Your task to perform on an android device: turn off wifi Image 0: 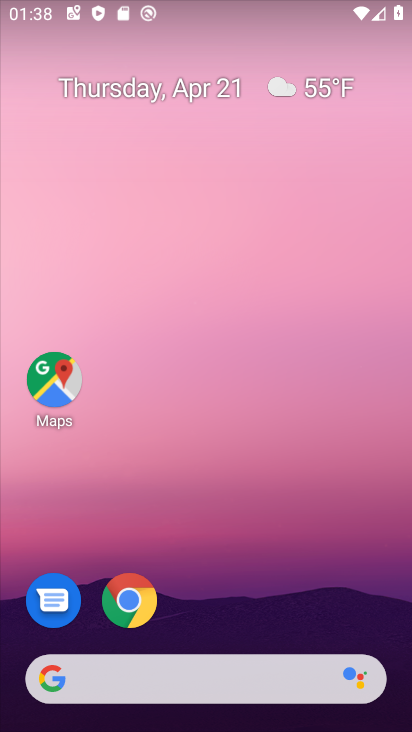
Step 0: drag from (300, 595) to (289, 150)
Your task to perform on an android device: turn off wifi Image 1: 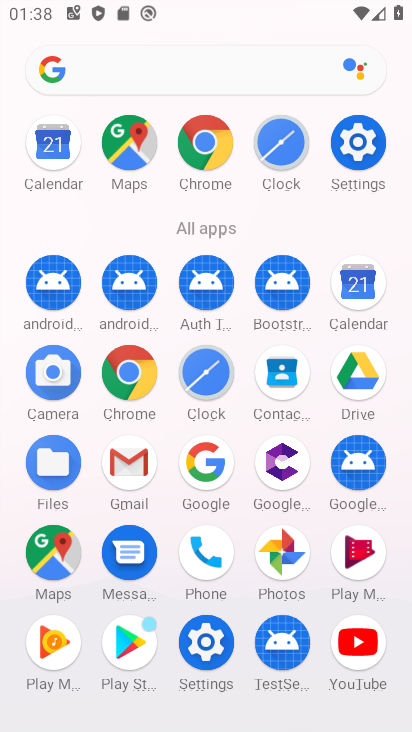
Step 1: click (364, 147)
Your task to perform on an android device: turn off wifi Image 2: 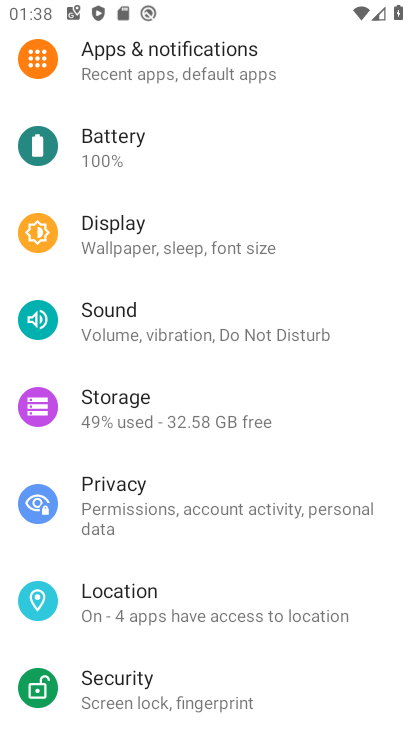
Step 2: drag from (313, 217) to (304, 528)
Your task to perform on an android device: turn off wifi Image 3: 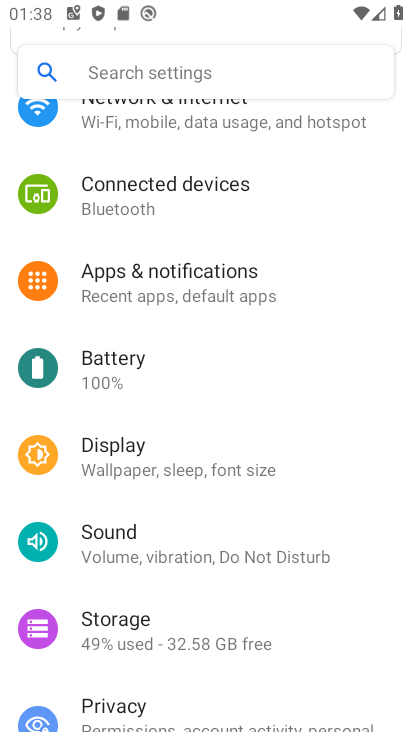
Step 3: click (213, 130)
Your task to perform on an android device: turn off wifi Image 4: 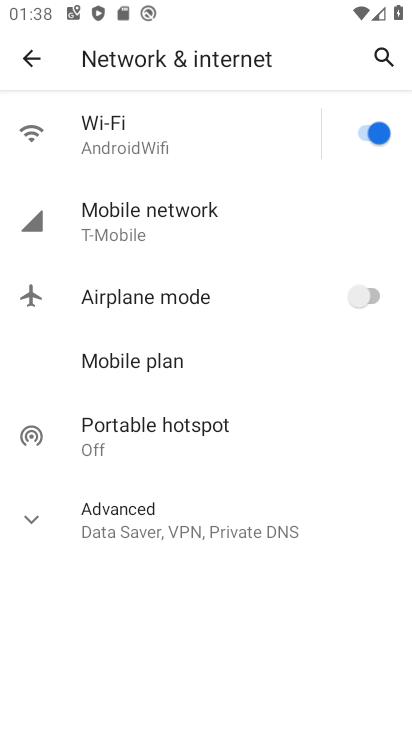
Step 4: click (385, 130)
Your task to perform on an android device: turn off wifi Image 5: 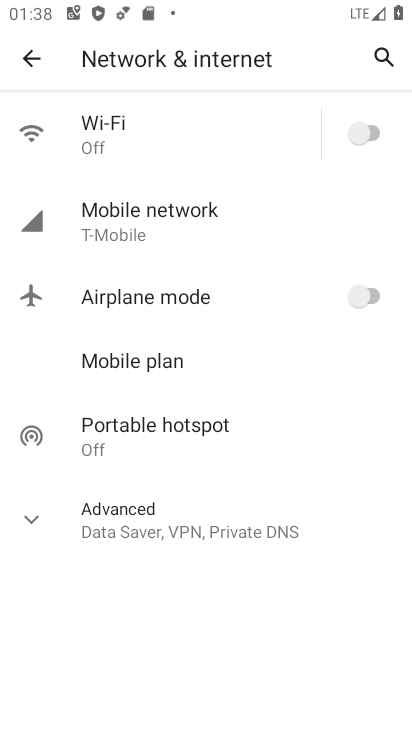
Step 5: task complete